Your task to perform on an android device: turn on data saver in the chrome app Image 0: 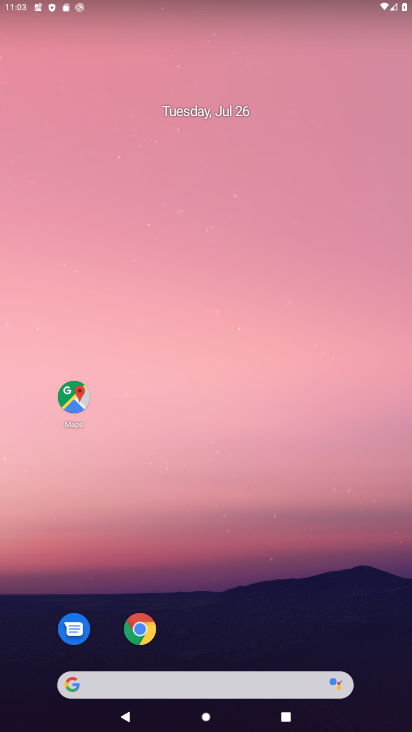
Step 0: click (131, 641)
Your task to perform on an android device: turn on data saver in the chrome app Image 1: 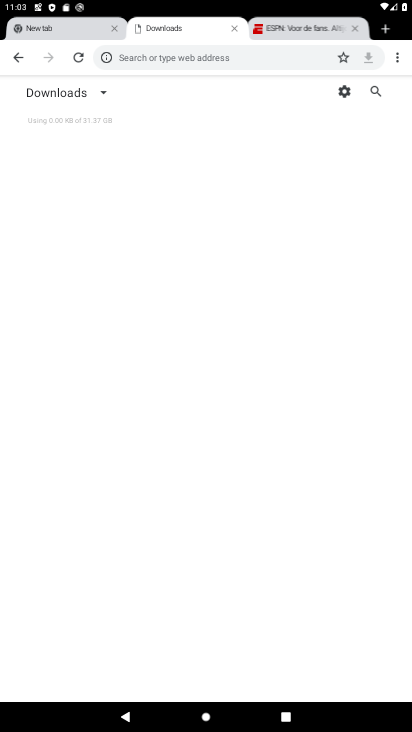
Step 1: click (401, 61)
Your task to perform on an android device: turn on data saver in the chrome app Image 2: 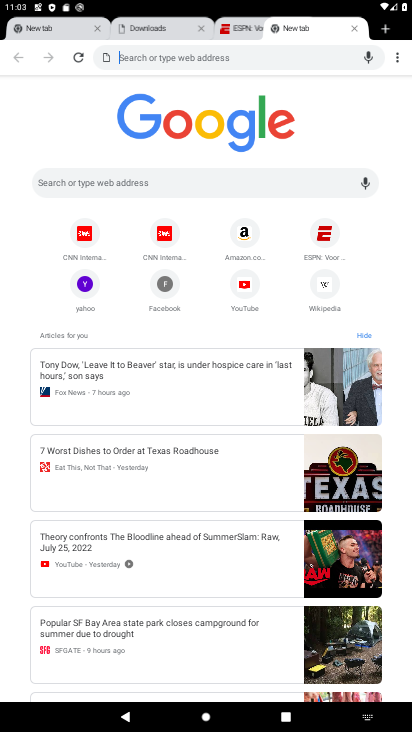
Step 2: click (401, 54)
Your task to perform on an android device: turn on data saver in the chrome app Image 3: 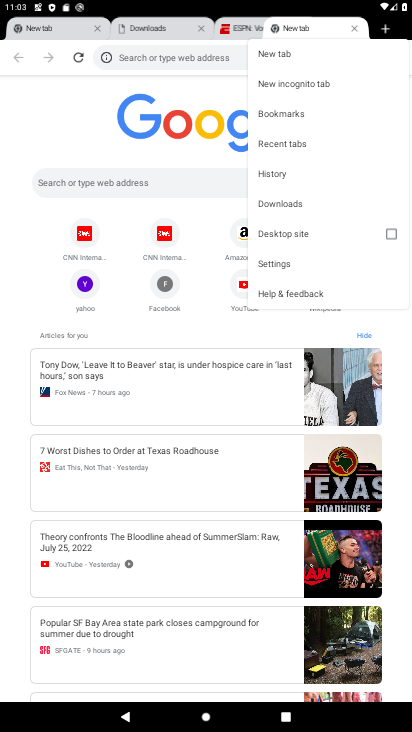
Step 3: click (288, 264)
Your task to perform on an android device: turn on data saver in the chrome app Image 4: 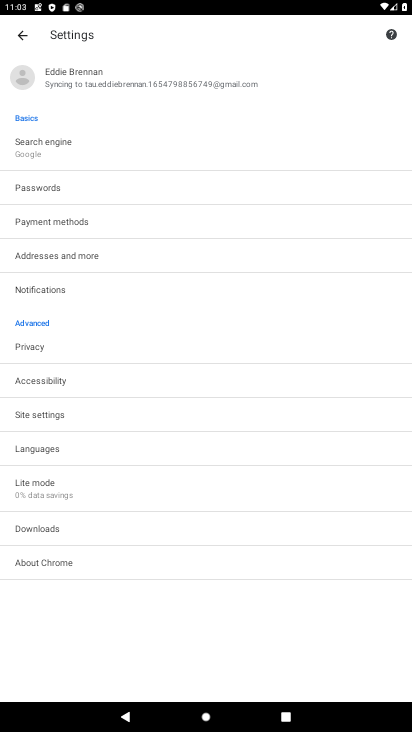
Step 4: click (126, 484)
Your task to perform on an android device: turn on data saver in the chrome app Image 5: 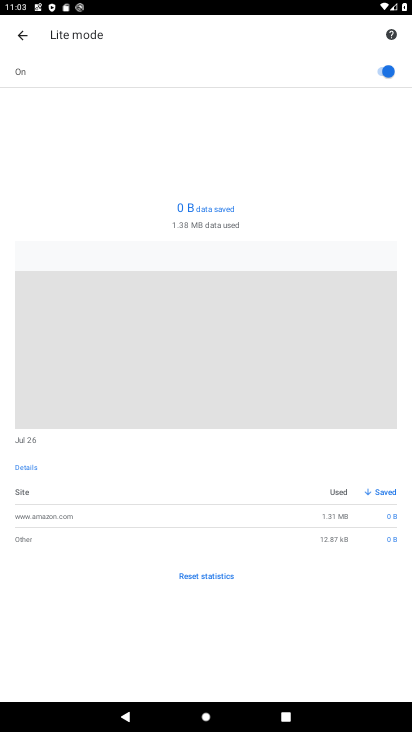
Step 5: click (380, 77)
Your task to perform on an android device: turn on data saver in the chrome app Image 6: 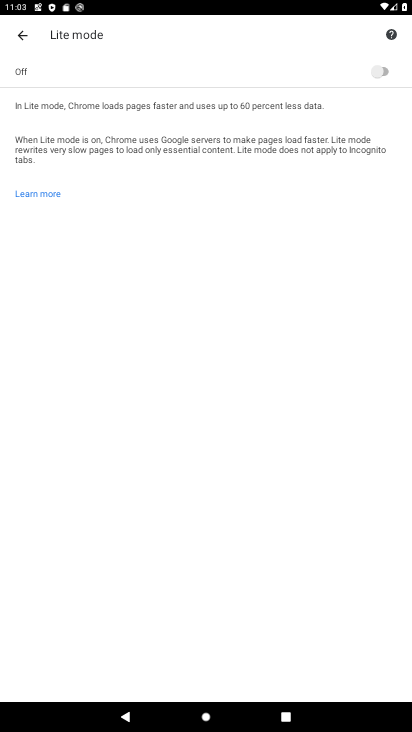
Step 6: task complete